Your task to perform on an android device: Do I have any events tomorrow? Image 0: 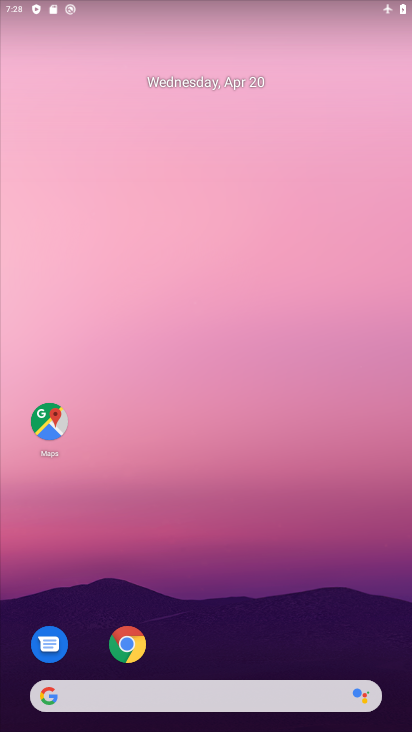
Step 0: drag from (332, 630) to (292, 68)
Your task to perform on an android device: Do I have any events tomorrow? Image 1: 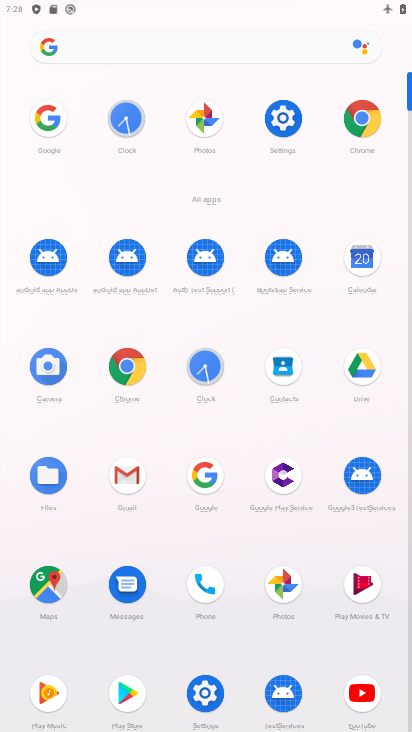
Step 1: click (349, 266)
Your task to perform on an android device: Do I have any events tomorrow? Image 2: 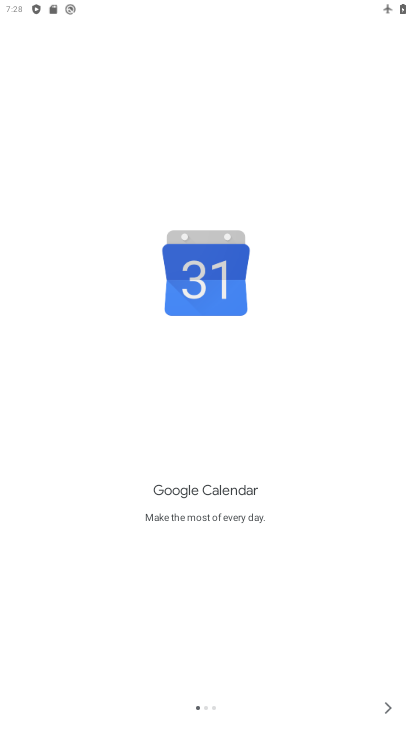
Step 2: click (383, 705)
Your task to perform on an android device: Do I have any events tomorrow? Image 3: 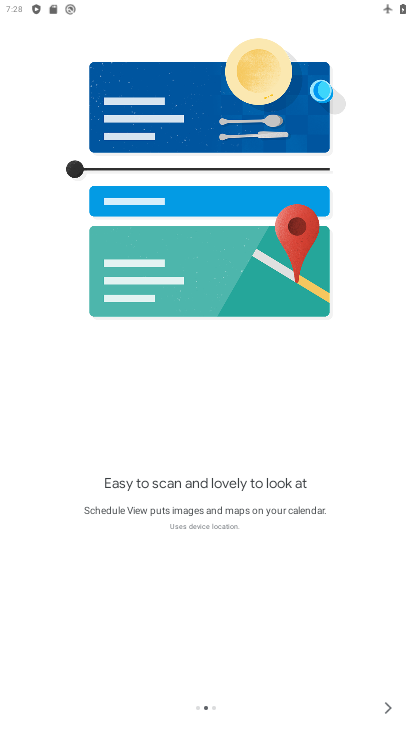
Step 3: click (383, 705)
Your task to perform on an android device: Do I have any events tomorrow? Image 4: 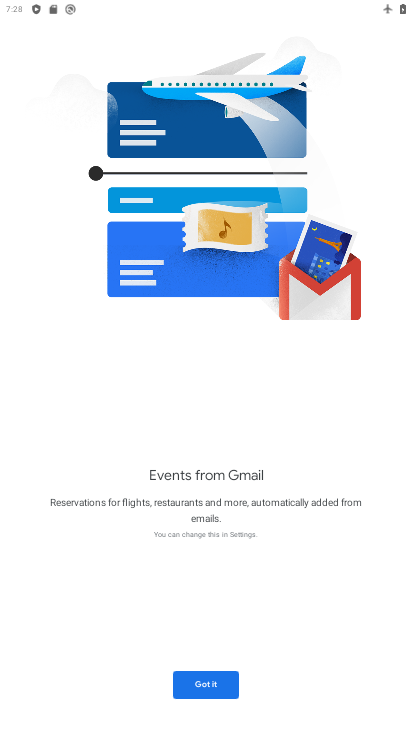
Step 4: click (186, 691)
Your task to perform on an android device: Do I have any events tomorrow? Image 5: 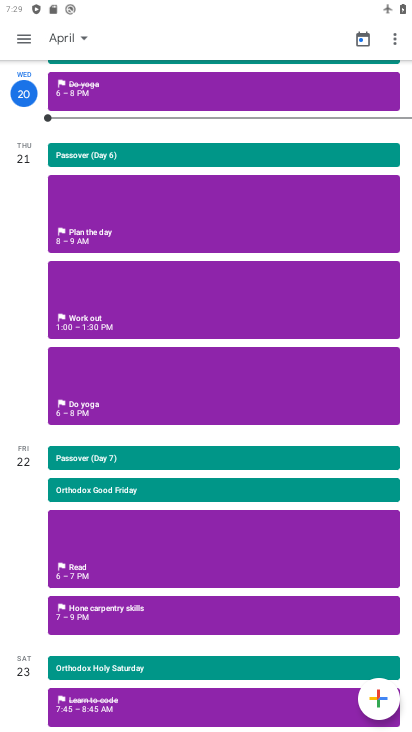
Step 5: click (51, 34)
Your task to perform on an android device: Do I have any events tomorrow? Image 6: 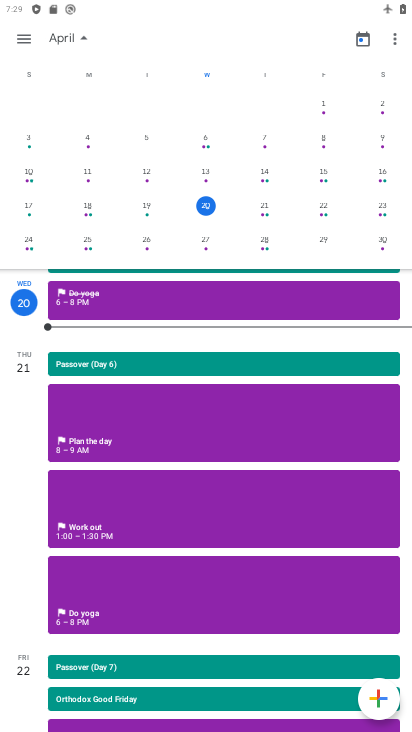
Step 6: click (325, 210)
Your task to perform on an android device: Do I have any events tomorrow? Image 7: 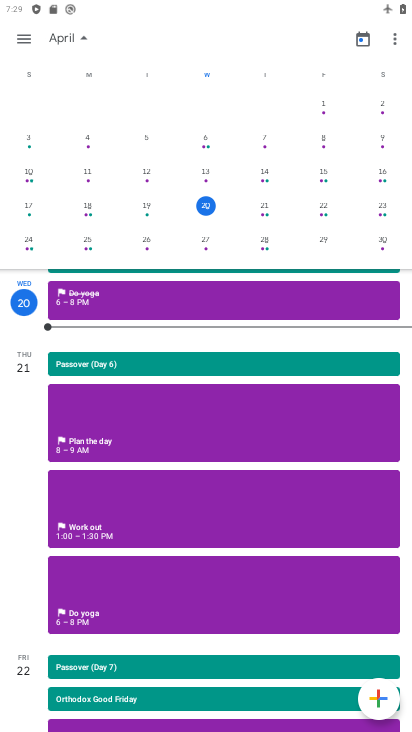
Step 7: click (319, 207)
Your task to perform on an android device: Do I have any events tomorrow? Image 8: 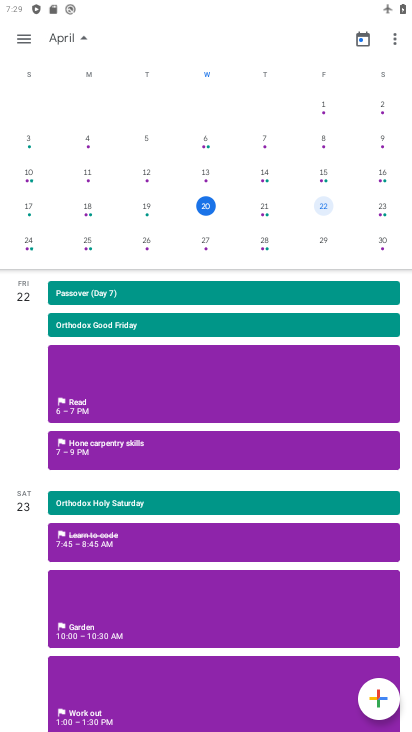
Step 8: click (324, 208)
Your task to perform on an android device: Do I have any events tomorrow? Image 9: 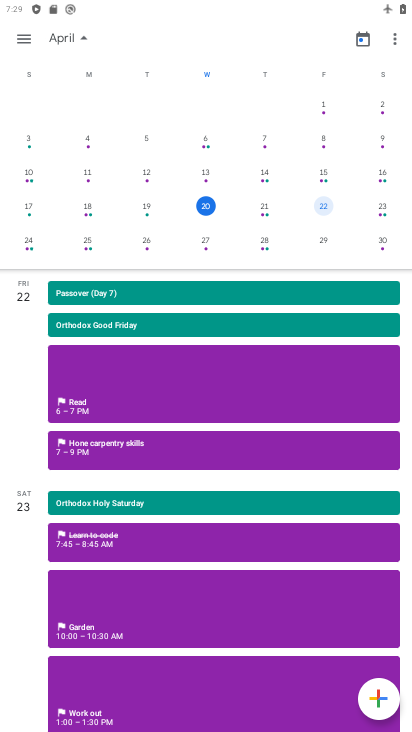
Step 9: click (322, 203)
Your task to perform on an android device: Do I have any events tomorrow? Image 10: 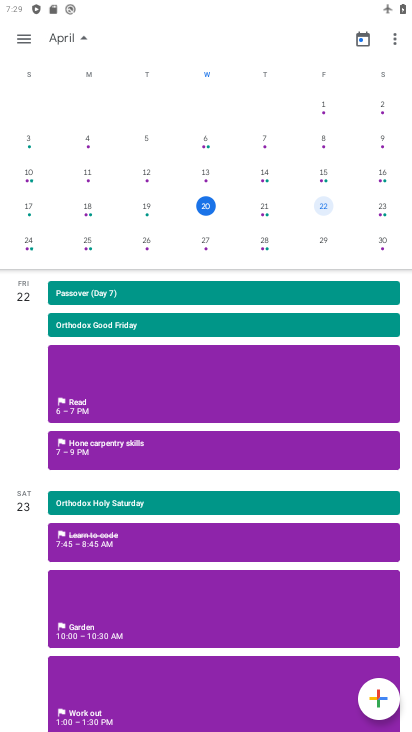
Step 10: click (323, 204)
Your task to perform on an android device: Do I have any events tomorrow? Image 11: 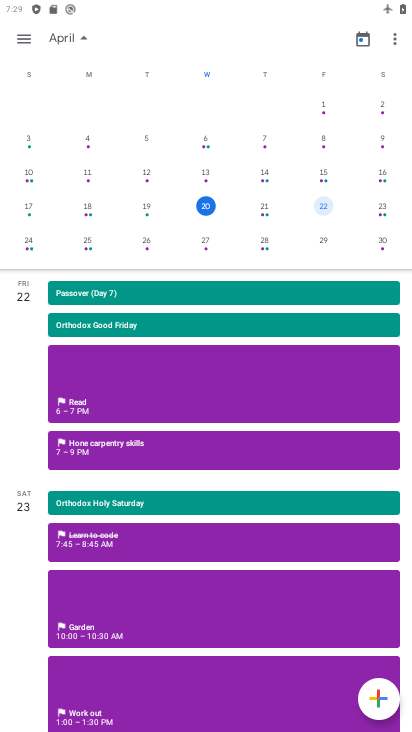
Step 11: click (323, 204)
Your task to perform on an android device: Do I have any events tomorrow? Image 12: 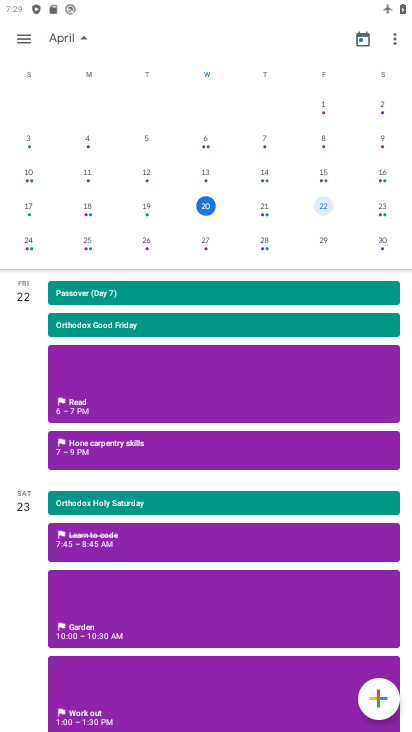
Step 12: click (323, 207)
Your task to perform on an android device: Do I have any events tomorrow? Image 13: 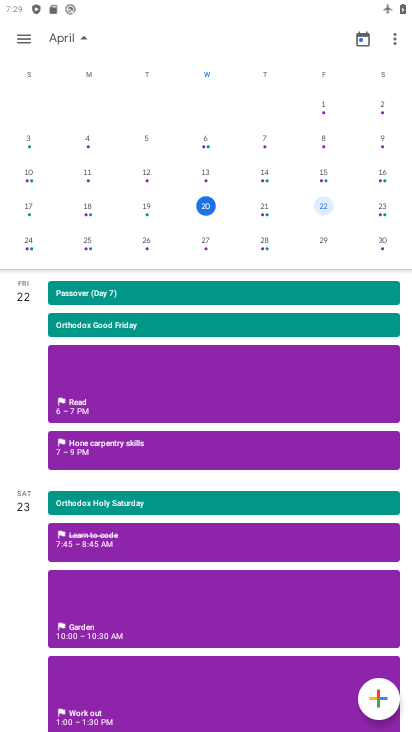
Step 13: drag from (244, 583) to (310, 106)
Your task to perform on an android device: Do I have any events tomorrow? Image 14: 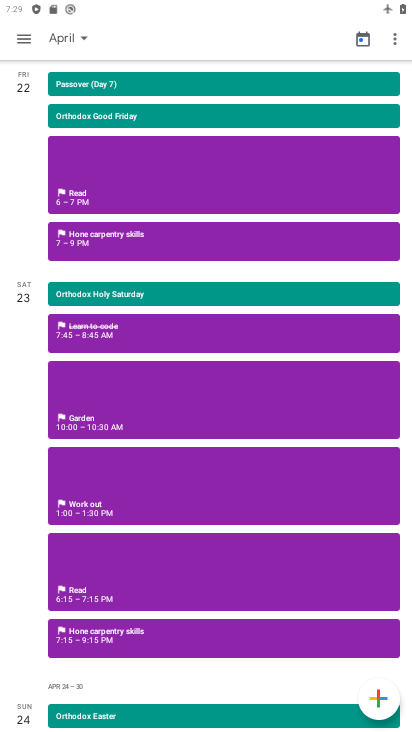
Step 14: drag from (312, 140) to (319, 581)
Your task to perform on an android device: Do I have any events tomorrow? Image 15: 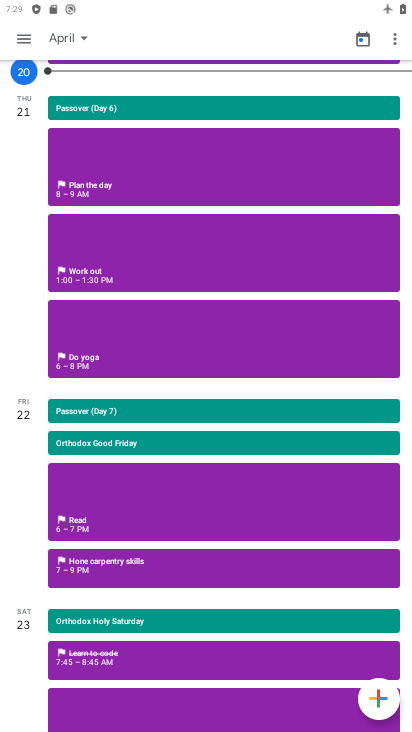
Step 15: drag from (232, 158) to (246, 584)
Your task to perform on an android device: Do I have any events tomorrow? Image 16: 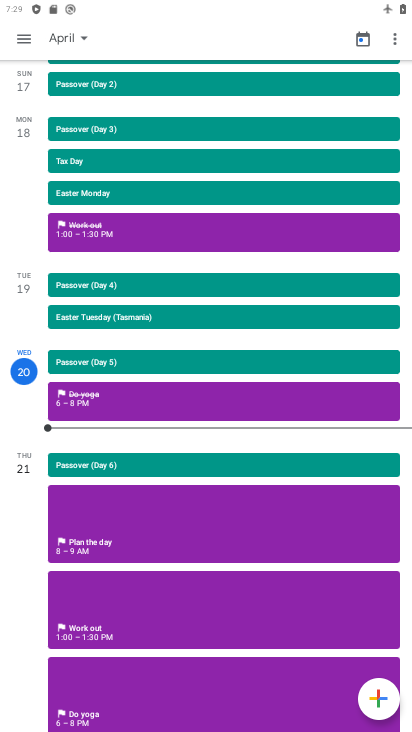
Step 16: click (62, 31)
Your task to perform on an android device: Do I have any events tomorrow? Image 17: 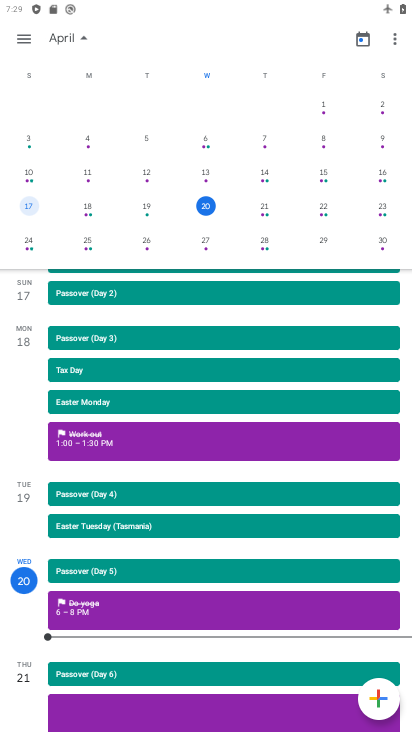
Step 17: drag from (121, 538) to (207, 61)
Your task to perform on an android device: Do I have any events tomorrow? Image 18: 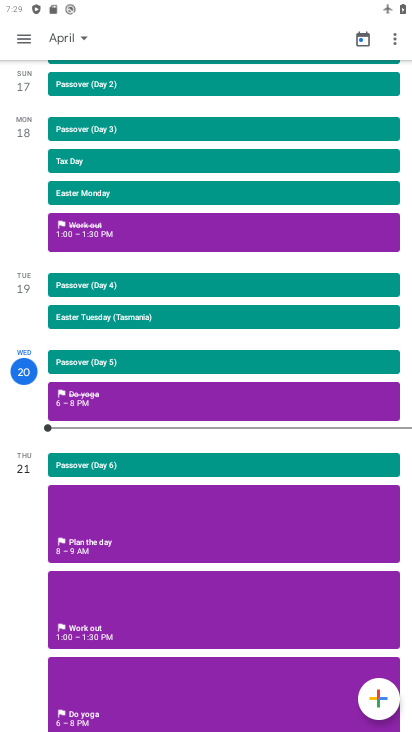
Step 18: drag from (162, 531) to (218, 74)
Your task to perform on an android device: Do I have any events tomorrow? Image 19: 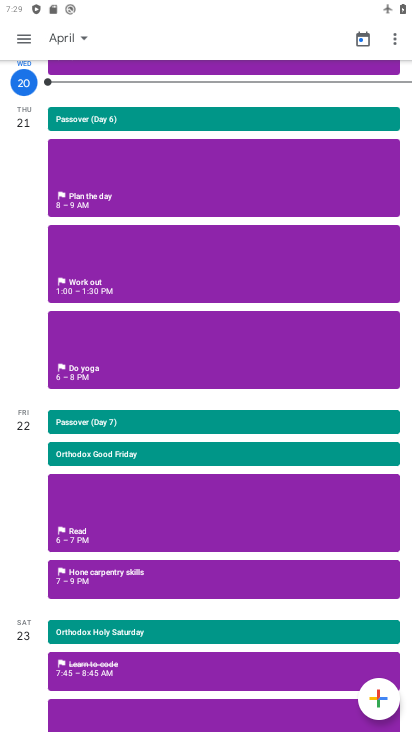
Step 19: click (93, 409)
Your task to perform on an android device: Do I have any events tomorrow? Image 20: 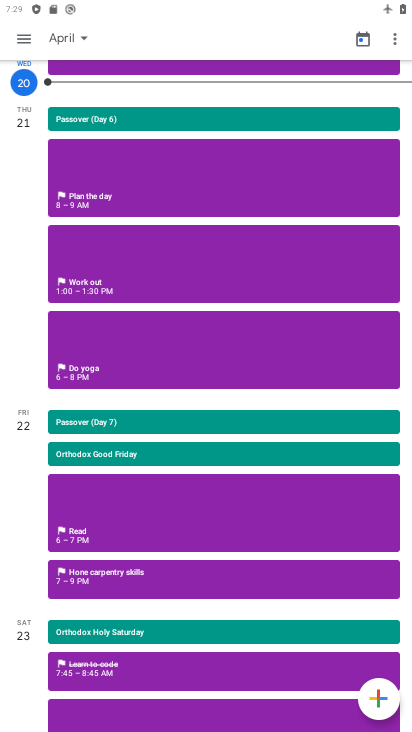
Step 20: click (109, 420)
Your task to perform on an android device: Do I have any events tomorrow? Image 21: 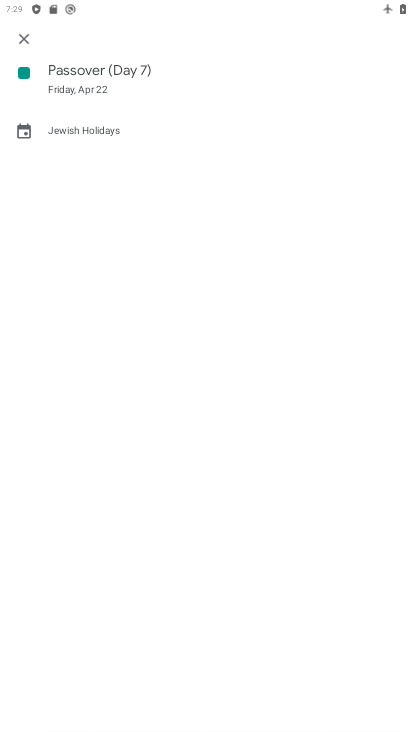
Step 21: task complete